Your task to perform on an android device: Set the phone to "Do not disturb". Image 0: 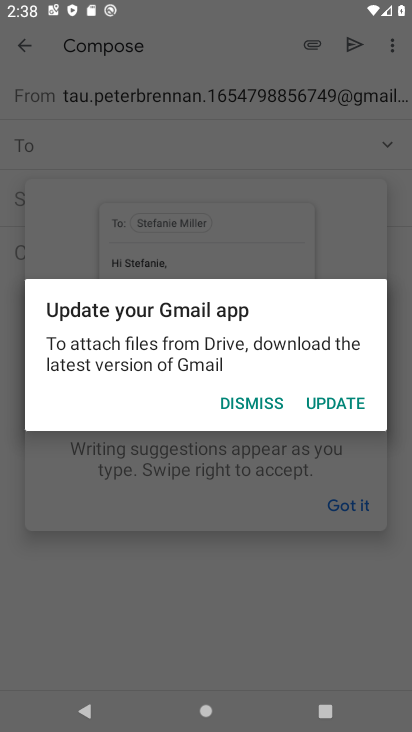
Step 0: press home button
Your task to perform on an android device: Set the phone to "Do not disturb". Image 1: 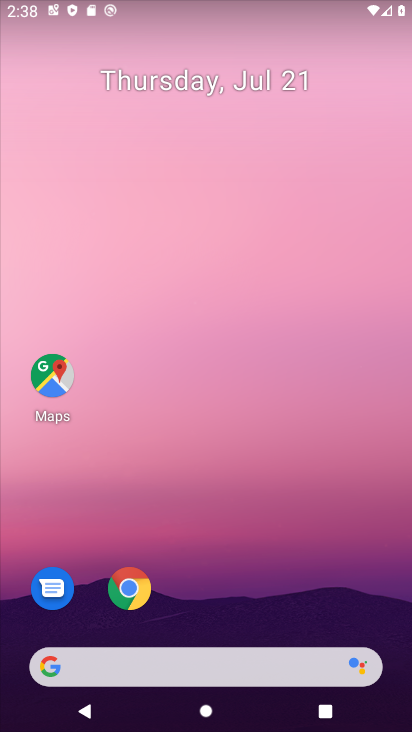
Step 1: drag from (218, 608) to (265, 216)
Your task to perform on an android device: Set the phone to "Do not disturb". Image 2: 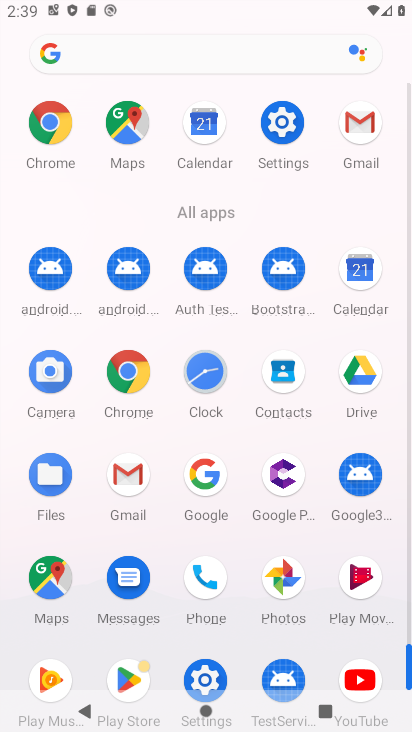
Step 2: drag from (279, 14) to (178, 384)
Your task to perform on an android device: Set the phone to "Do not disturb". Image 3: 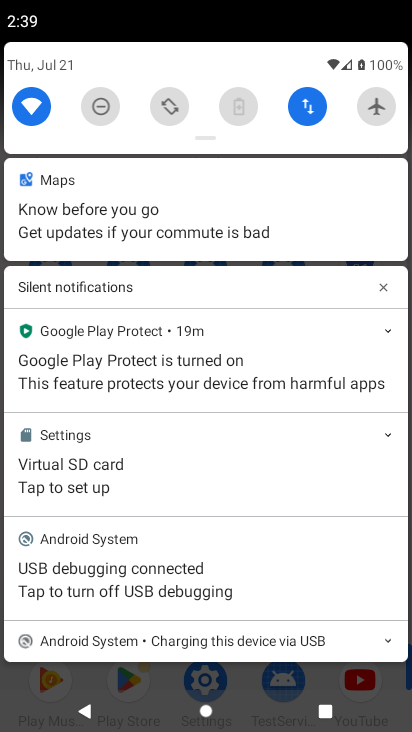
Step 3: drag from (237, 128) to (211, 505)
Your task to perform on an android device: Set the phone to "Do not disturb". Image 4: 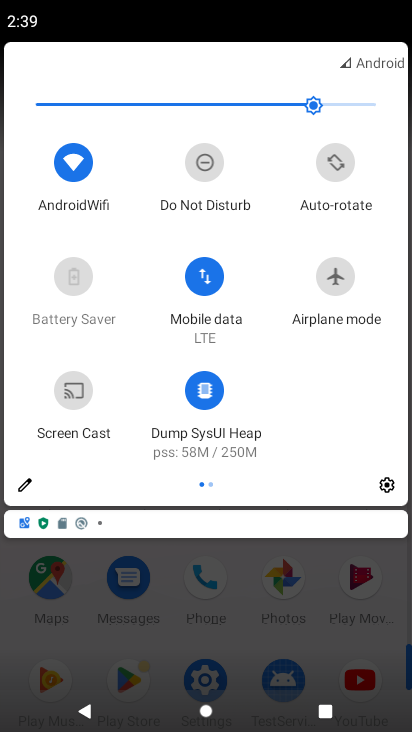
Step 4: click (226, 170)
Your task to perform on an android device: Set the phone to "Do not disturb". Image 5: 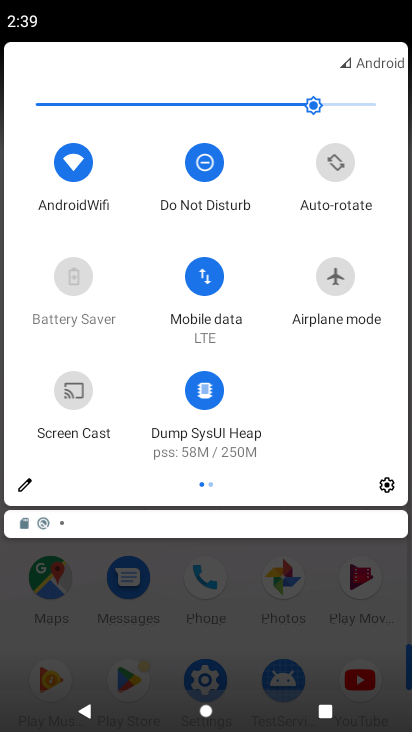
Step 5: task complete